Your task to perform on an android device: change text size in settings app Image 0: 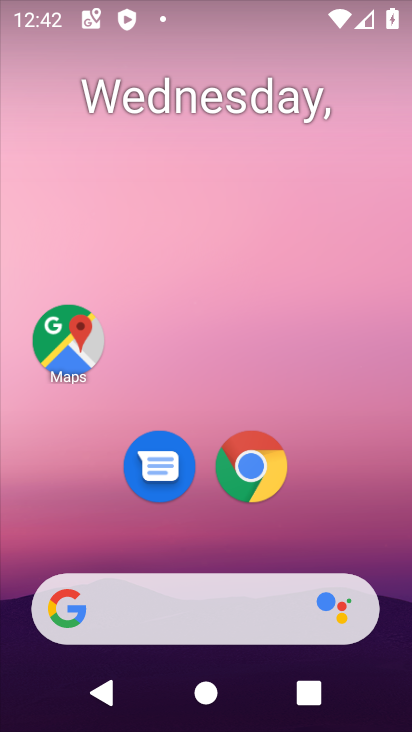
Step 0: press home button
Your task to perform on an android device: change text size in settings app Image 1: 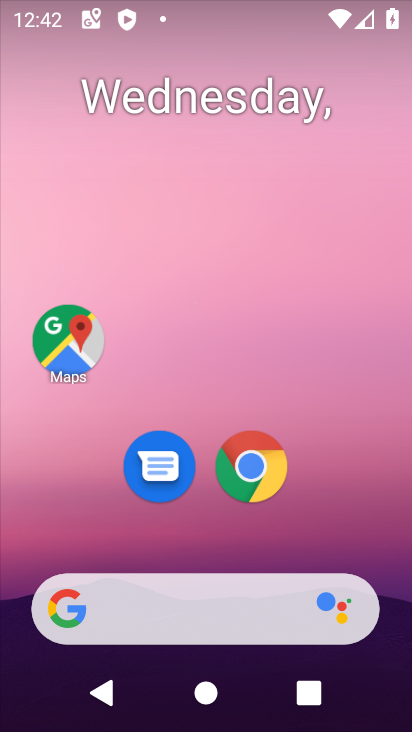
Step 1: drag from (317, 536) to (338, 90)
Your task to perform on an android device: change text size in settings app Image 2: 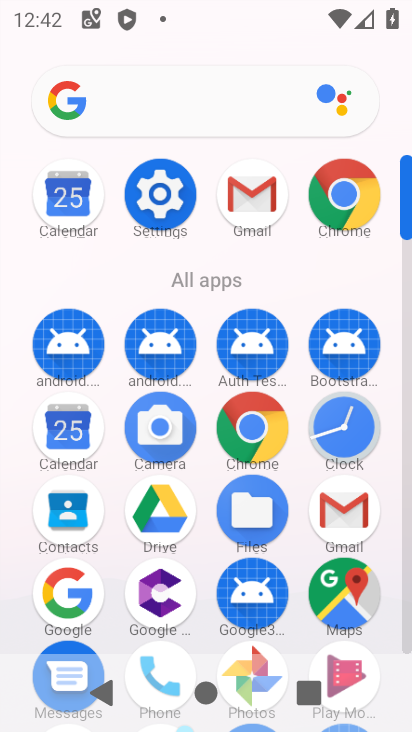
Step 2: click (155, 193)
Your task to perform on an android device: change text size in settings app Image 3: 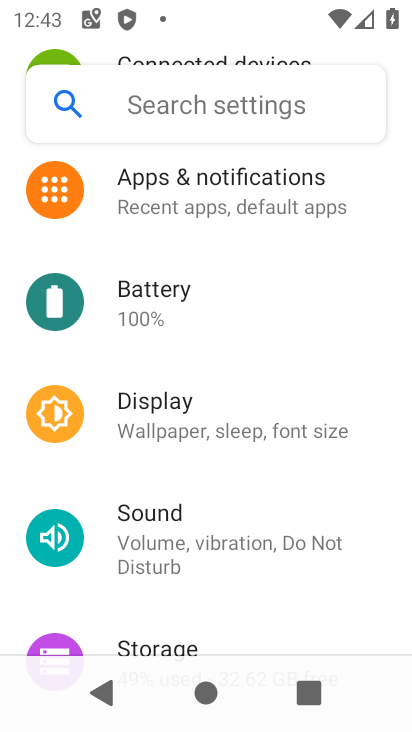
Step 3: click (151, 415)
Your task to perform on an android device: change text size in settings app Image 4: 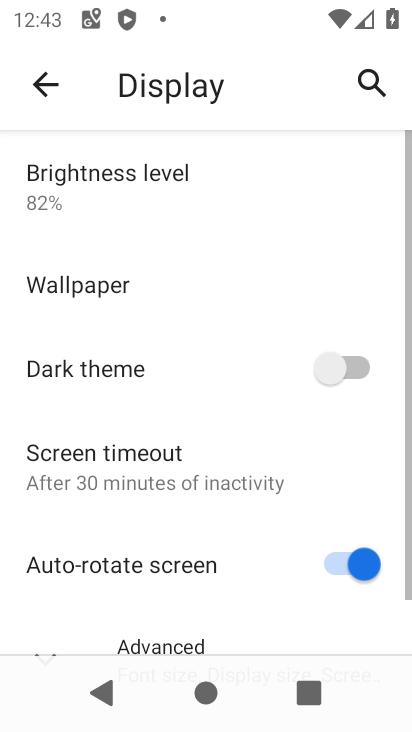
Step 4: drag from (132, 622) to (163, 176)
Your task to perform on an android device: change text size in settings app Image 5: 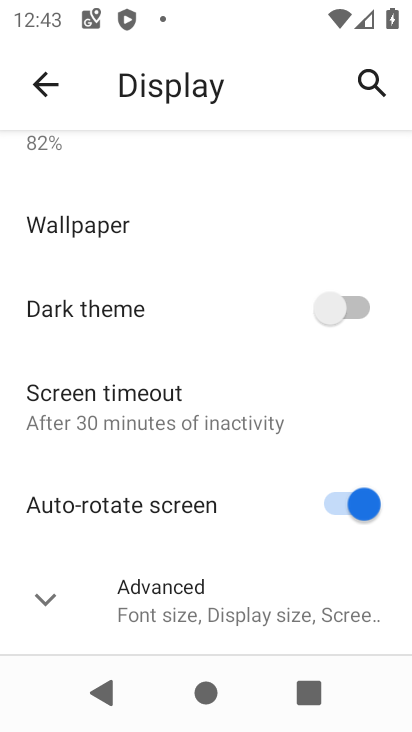
Step 5: click (184, 605)
Your task to perform on an android device: change text size in settings app Image 6: 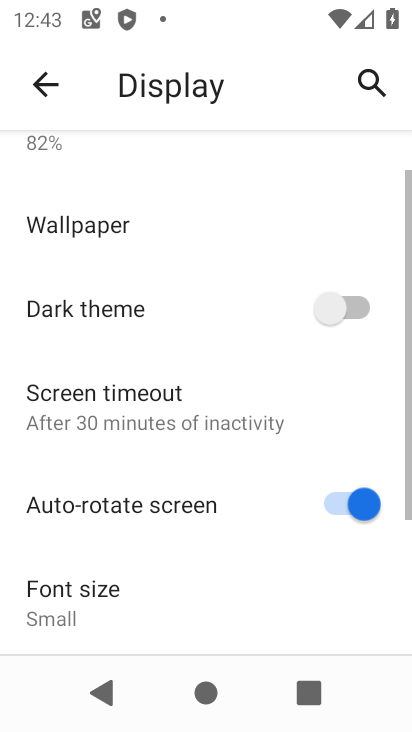
Step 6: drag from (184, 605) to (164, 344)
Your task to perform on an android device: change text size in settings app Image 7: 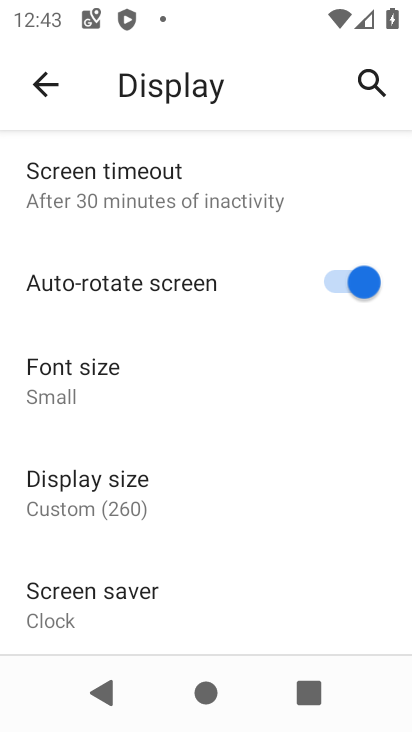
Step 7: click (58, 375)
Your task to perform on an android device: change text size in settings app Image 8: 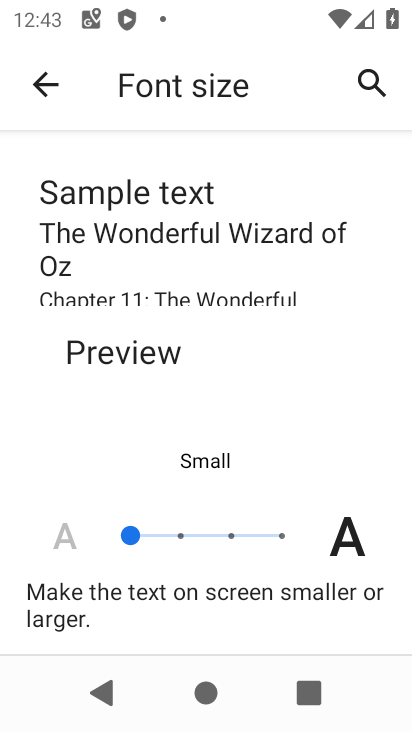
Step 8: click (351, 545)
Your task to perform on an android device: change text size in settings app Image 9: 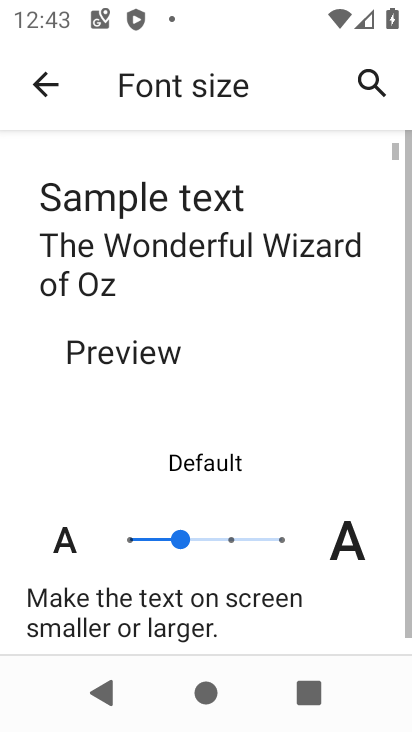
Step 9: task complete